Your task to perform on an android device: open app "Contacts" (install if not already installed) Image 0: 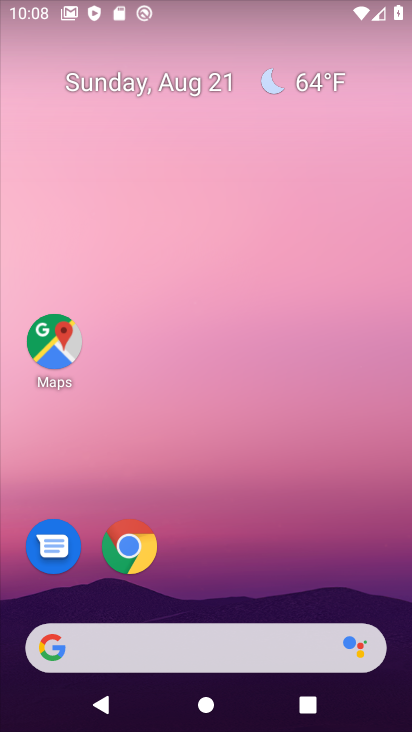
Step 0: drag from (188, 647) to (172, 47)
Your task to perform on an android device: open app "Contacts" (install if not already installed) Image 1: 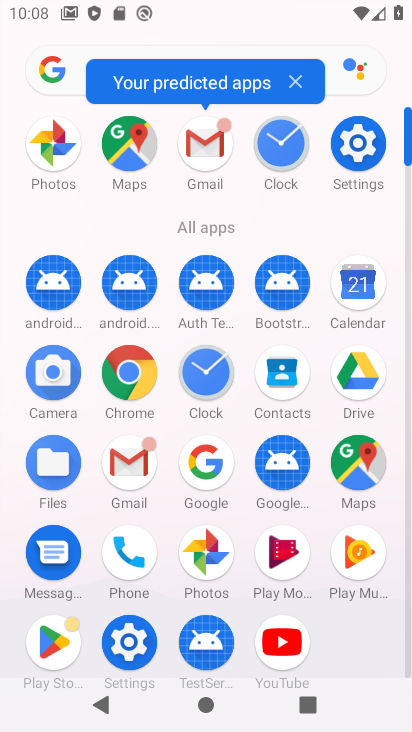
Step 1: click (40, 639)
Your task to perform on an android device: open app "Contacts" (install if not already installed) Image 2: 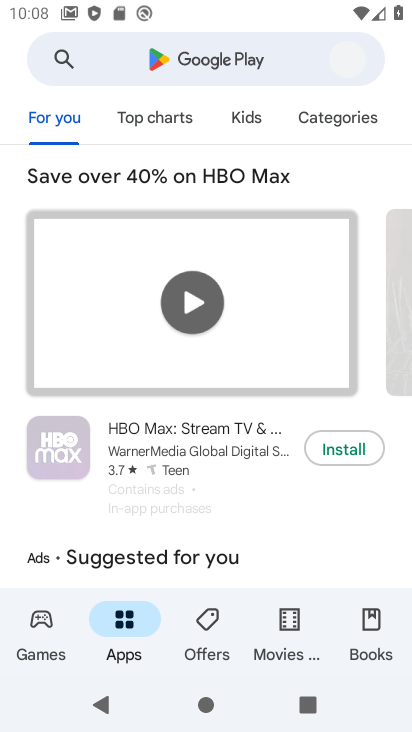
Step 2: click (239, 70)
Your task to perform on an android device: open app "Contacts" (install if not already installed) Image 3: 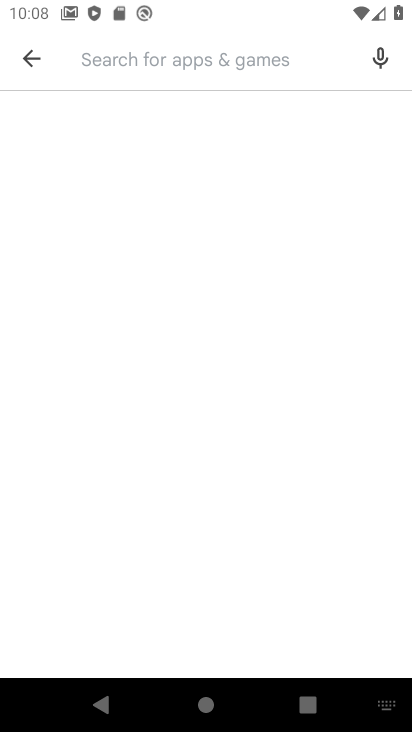
Step 3: type "contact"
Your task to perform on an android device: open app "Contacts" (install if not already installed) Image 4: 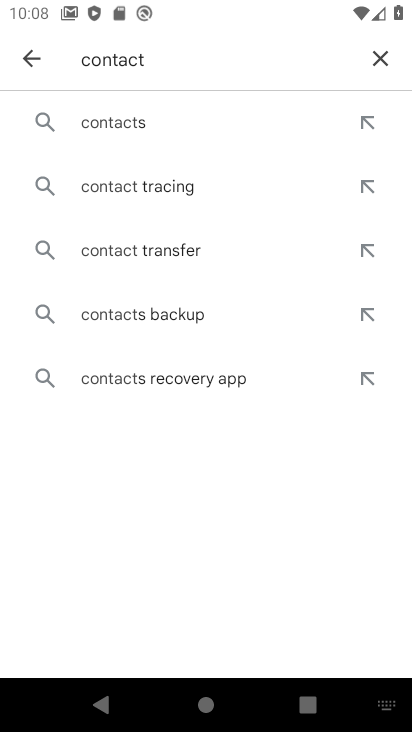
Step 4: click (131, 126)
Your task to perform on an android device: open app "Contacts" (install if not already installed) Image 5: 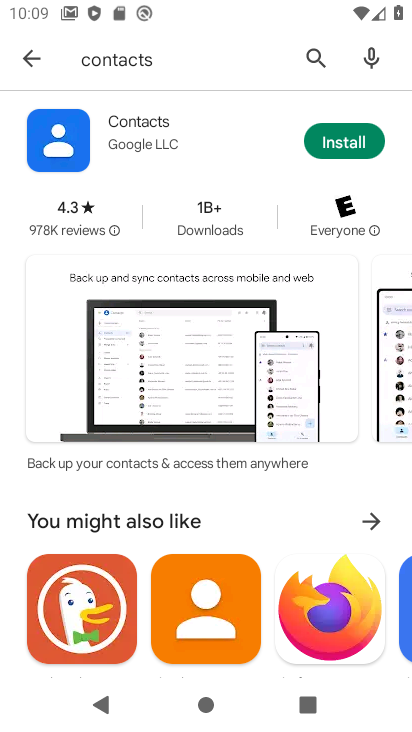
Step 5: click (320, 150)
Your task to perform on an android device: open app "Contacts" (install if not already installed) Image 6: 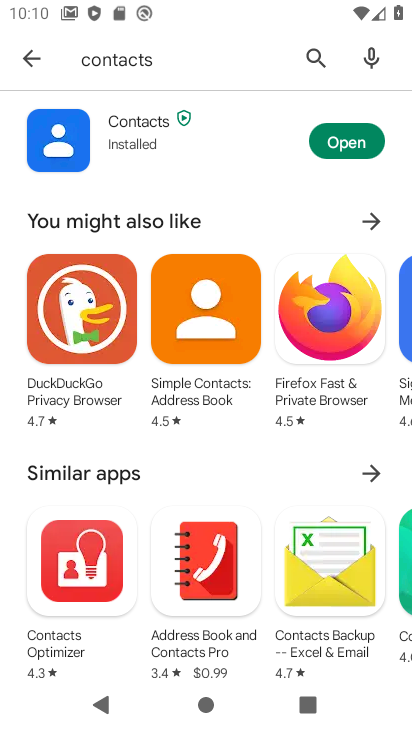
Step 6: click (332, 145)
Your task to perform on an android device: open app "Contacts" (install if not already installed) Image 7: 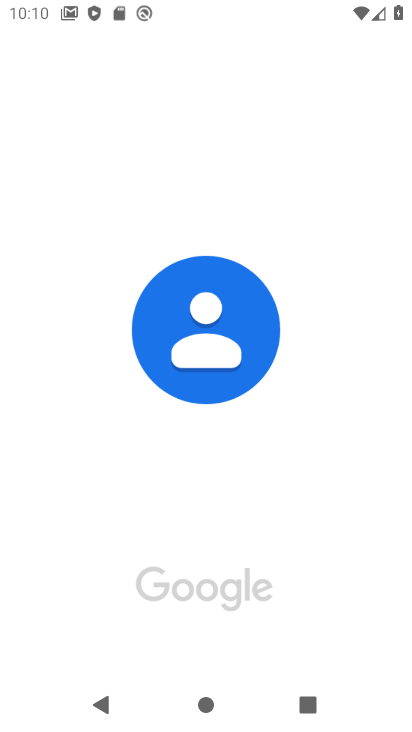
Step 7: task complete